Your task to perform on an android device: choose inbox layout in the gmail app Image 0: 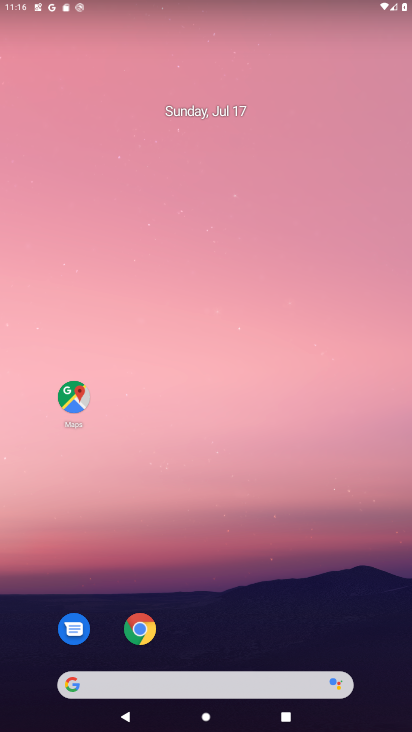
Step 0: drag from (207, 682) to (307, 140)
Your task to perform on an android device: choose inbox layout in the gmail app Image 1: 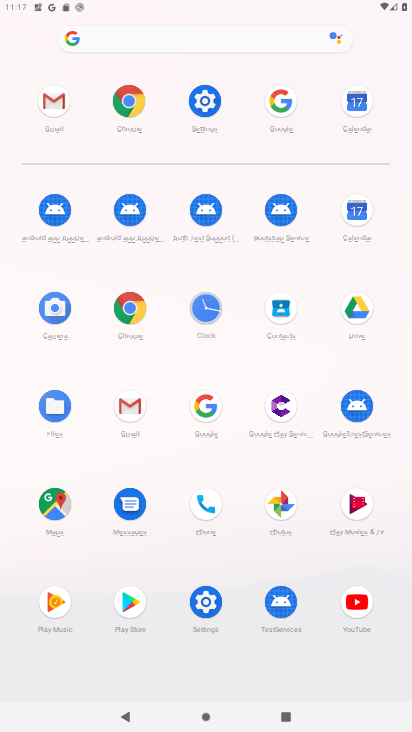
Step 1: click (131, 405)
Your task to perform on an android device: choose inbox layout in the gmail app Image 2: 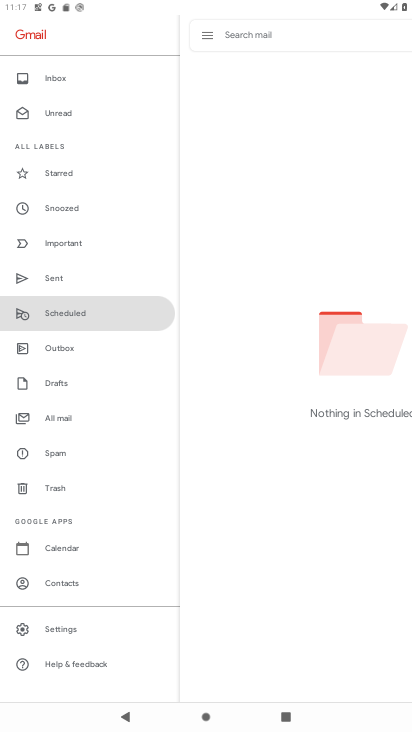
Step 2: click (63, 629)
Your task to perform on an android device: choose inbox layout in the gmail app Image 3: 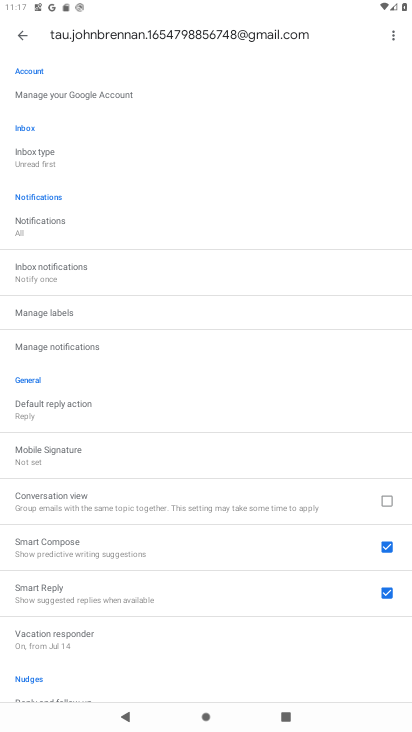
Step 3: drag from (95, 660) to (191, 464)
Your task to perform on an android device: choose inbox layout in the gmail app Image 4: 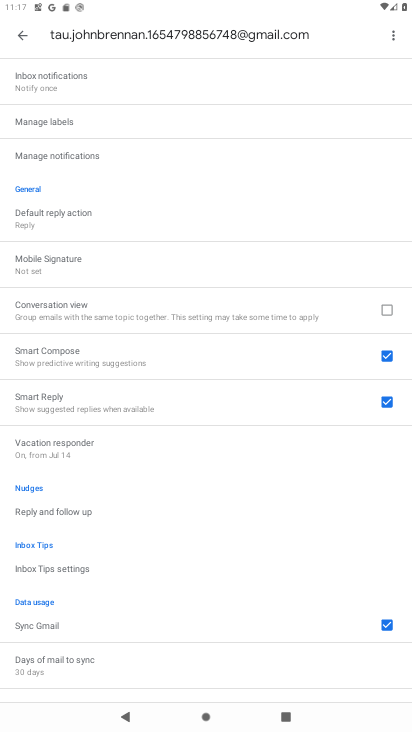
Step 4: drag from (103, 618) to (200, 504)
Your task to perform on an android device: choose inbox layout in the gmail app Image 5: 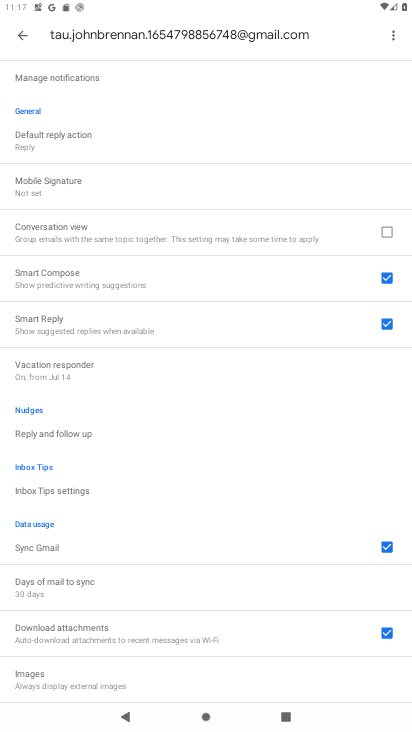
Step 5: drag from (56, 163) to (13, 269)
Your task to perform on an android device: choose inbox layout in the gmail app Image 6: 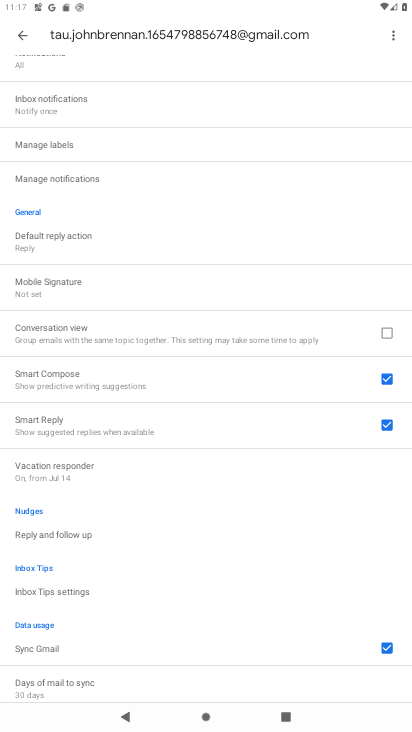
Step 6: drag from (101, 187) to (117, 299)
Your task to perform on an android device: choose inbox layout in the gmail app Image 7: 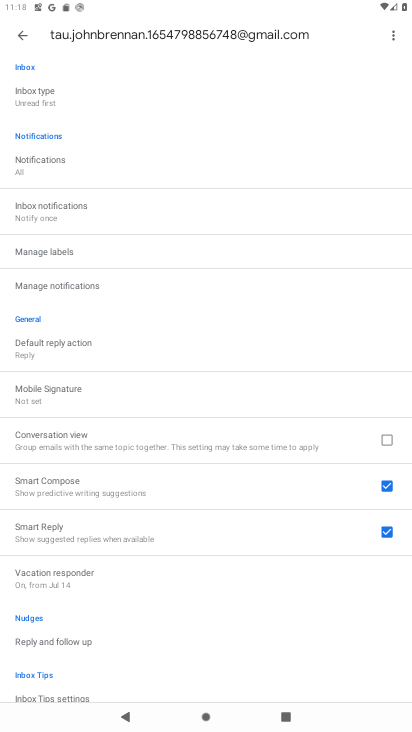
Step 7: click (57, 109)
Your task to perform on an android device: choose inbox layout in the gmail app Image 8: 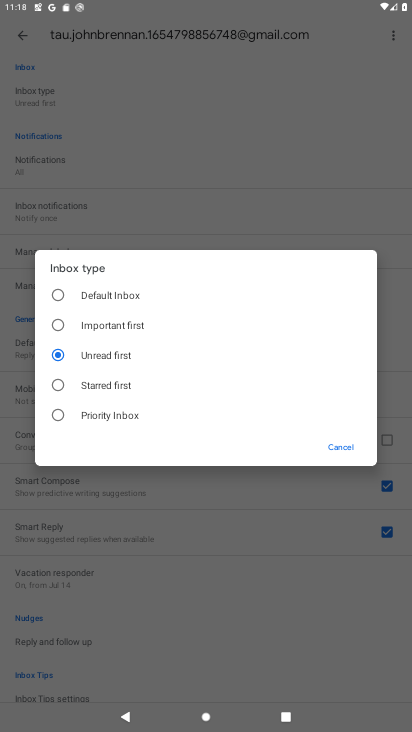
Step 8: click (60, 386)
Your task to perform on an android device: choose inbox layout in the gmail app Image 9: 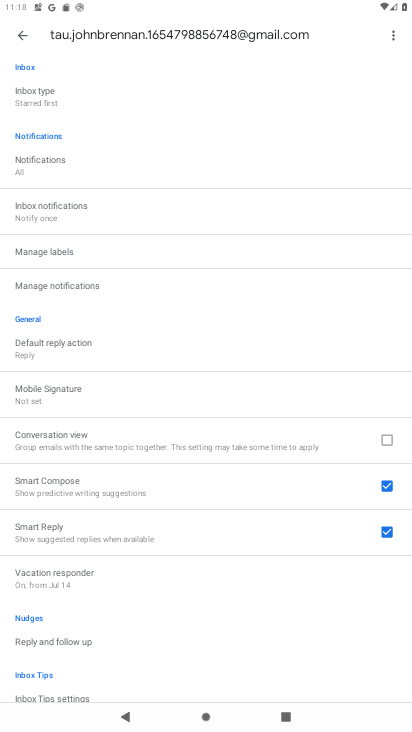
Step 9: task complete